Your task to perform on an android device: turn pop-ups on in chrome Image 0: 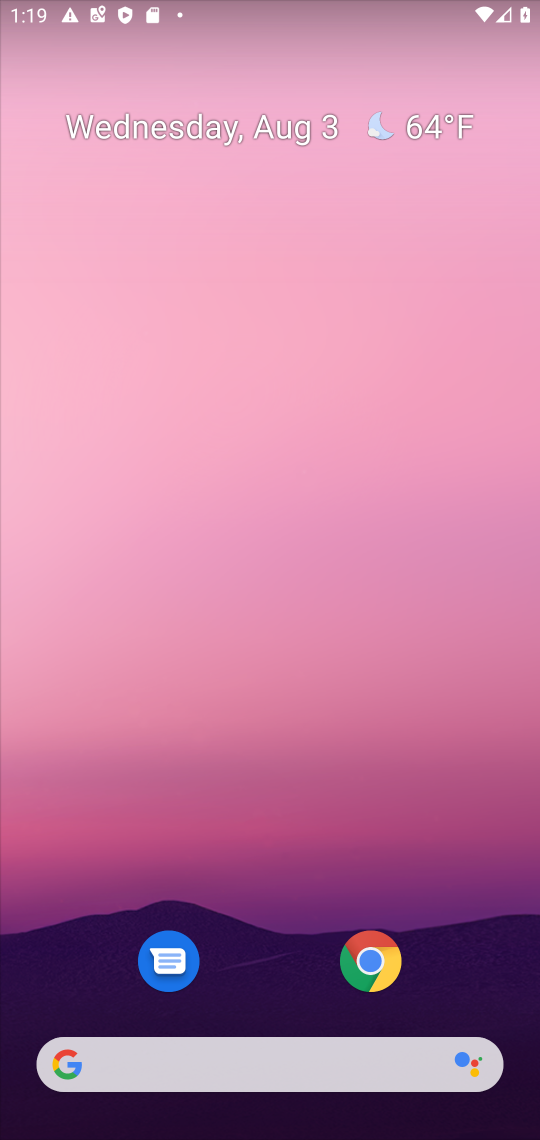
Step 0: press home button
Your task to perform on an android device: turn pop-ups on in chrome Image 1: 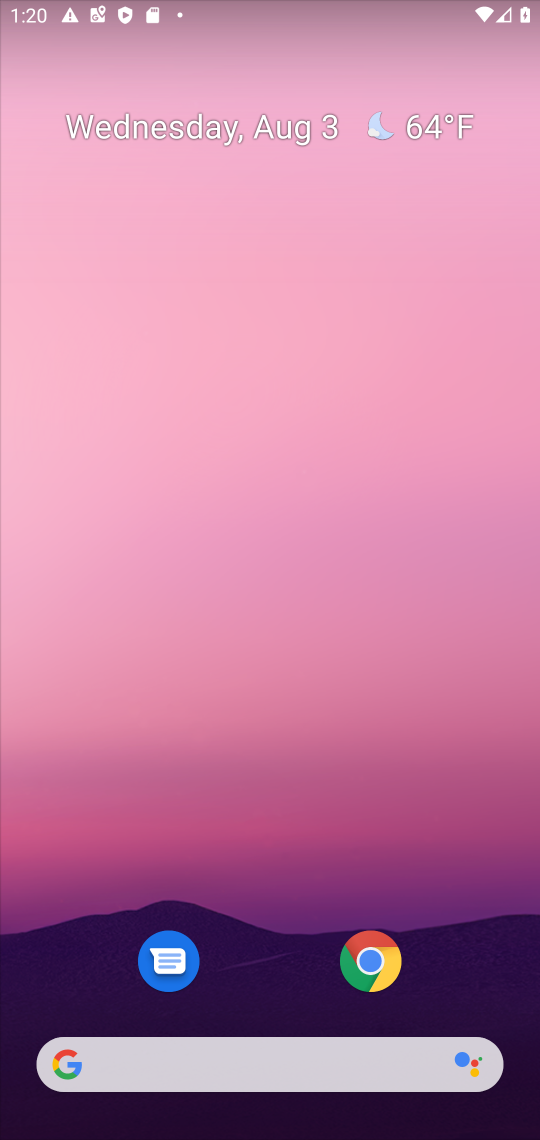
Step 1: click (378, 965)
Your task to perform on an android device: turn pop-ups on in chrome Image 2: 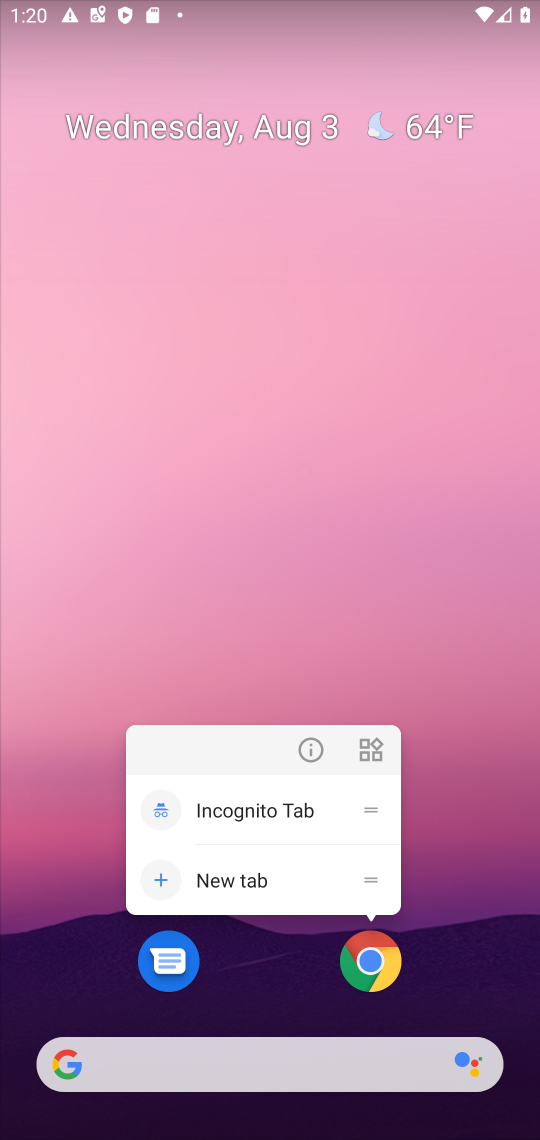
Step 2: click (378, 965)
Your task to perform on an android device: turn pop-ups on in chrome Image 3: 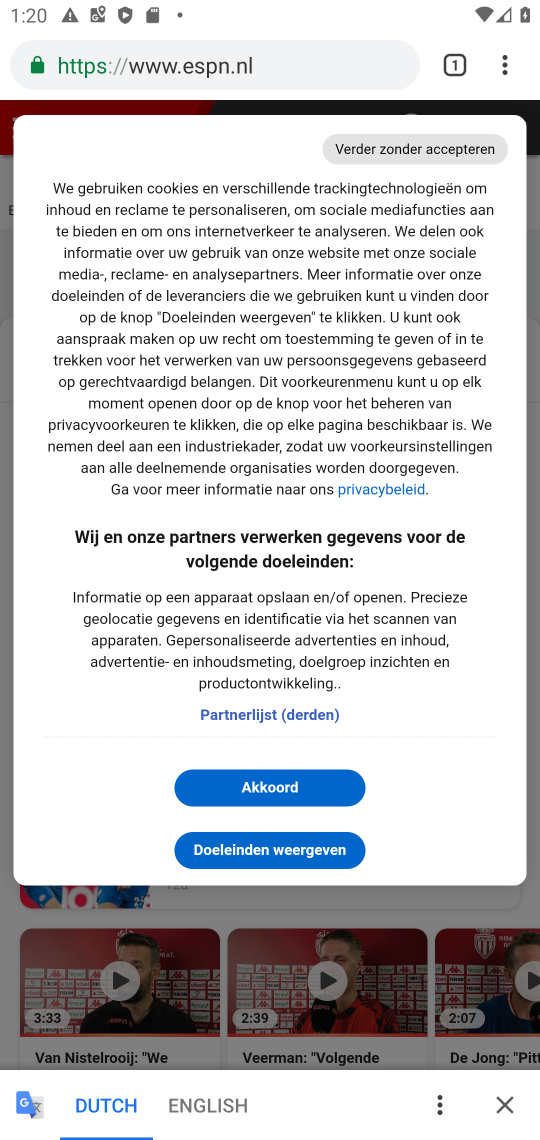
Step 3: drag from (504, 56) to (294, 785)
Your task to perform on an android device: turn pop-ups on in chrome Image 4: 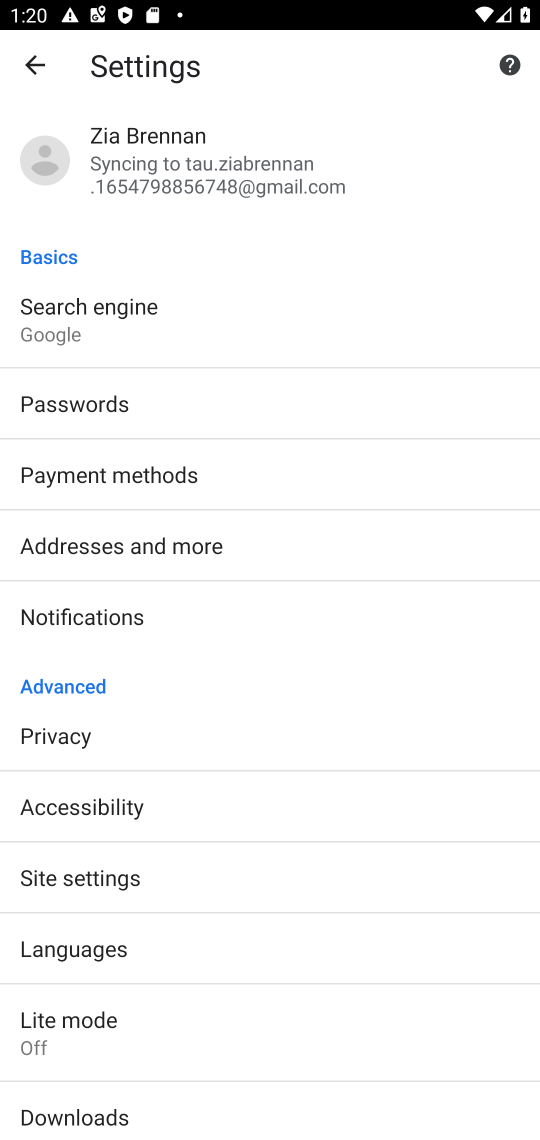
Step 4: click (102, 873)
Your task to perform on an android device: turn pop-ups on in chrome Image 5: 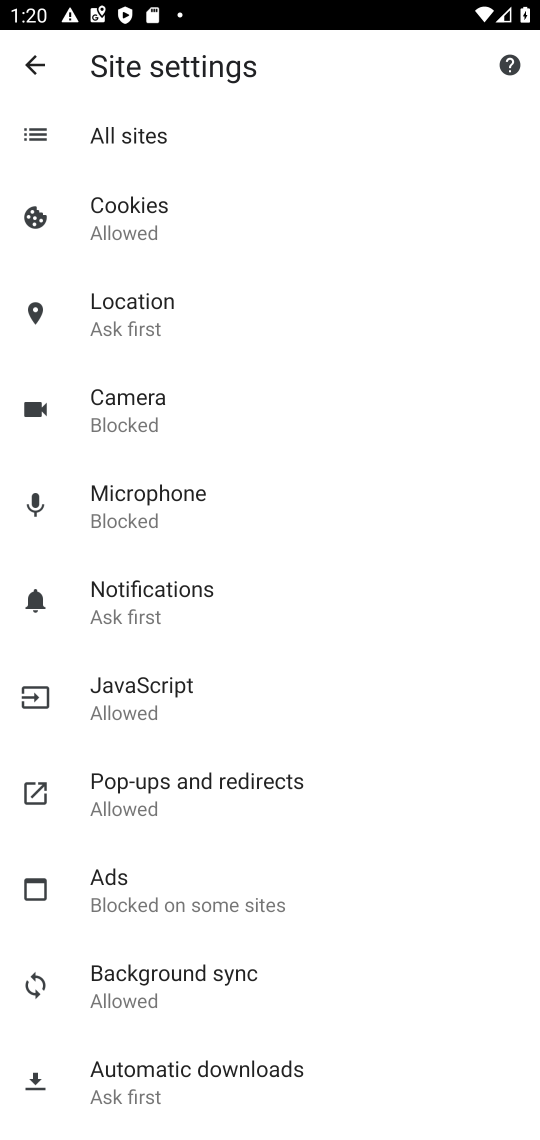
Step 5: click (141, 791)
Your task to perform on an android device: turn pop-ups on in chrome Image 6: 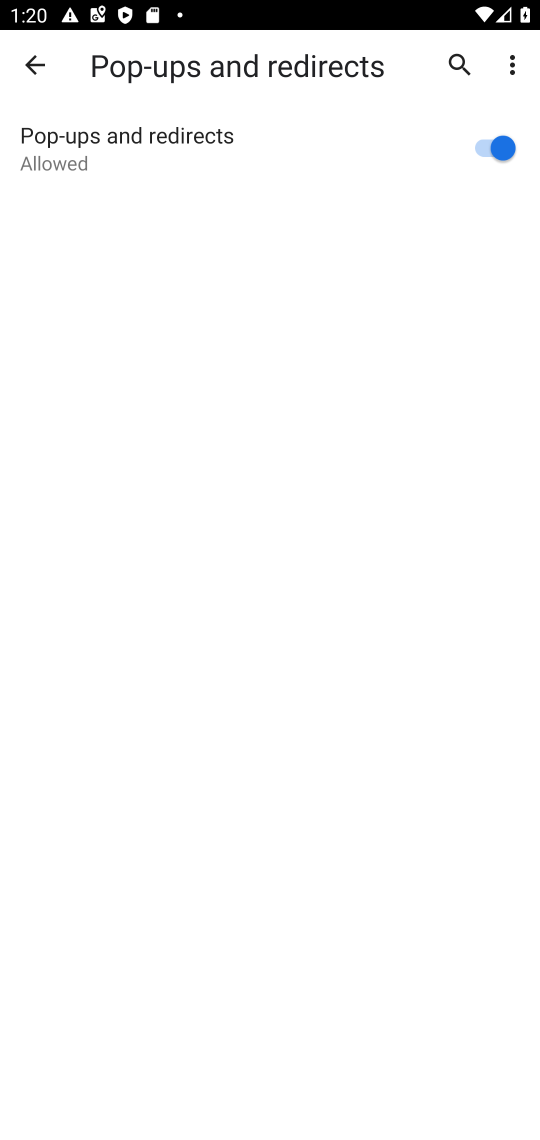
Step 6: task complete